Your task to perform on an android device: Show the shopping cart on walmart.com. Add lenovo thinkpad to the cart on walmart.com Image 0: 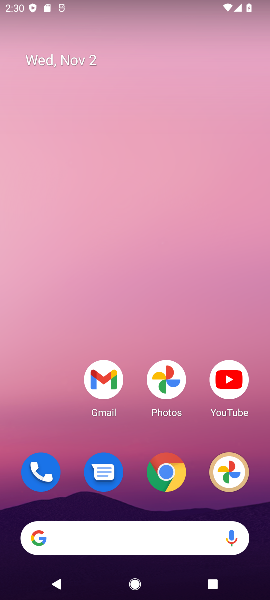
Step 0: click (165, 473)
Your task to perform on an android device: Show the shopping cart on walmart.com. Add lenovo thinkpad to the cart on walmart.com Image 1: 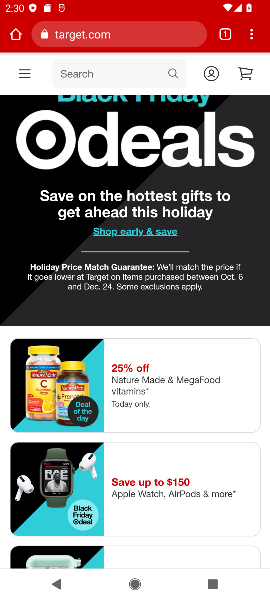
Step 1: click (73, 40)
Your task to perform on an android device: Show the shopping cart on walmart.com. Add lenovo thinkpad to the cart on walmart.com Image 2: 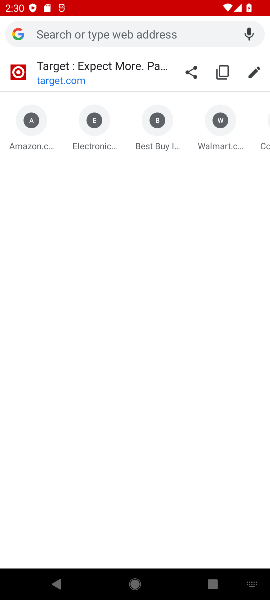
Step 2: type "walmart.com"
Your task to perform on an android device: Show the shopping cart on walmart.com. Add lenovo thinkpad to the cart on walmart.com Image 3: 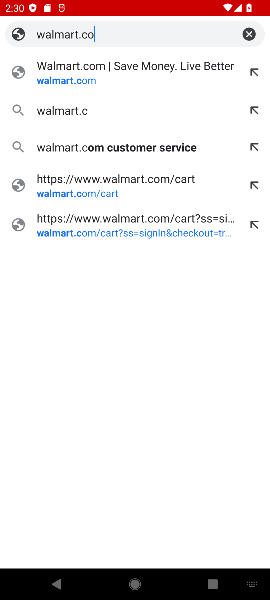
Step 3: type ""
Your task to perform on an android device: Show the shopping cart on walmart.com. Add lenovo thinkpad to the cart on walmart.com Image 4: 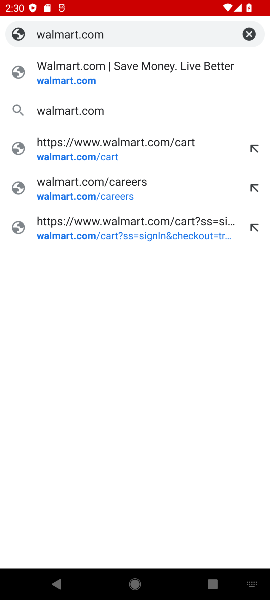
Step 4: press enter
Your task to perform on an android device: Show the shopping cart on walmart.com. Add lenovo thinkpad to the cart on walmart.com Image 5: 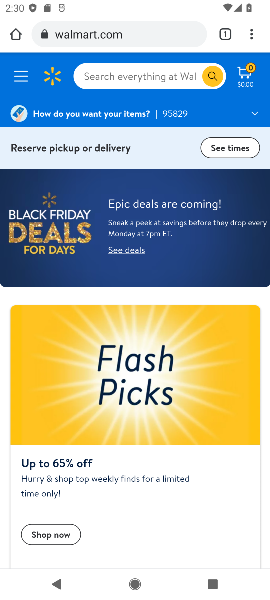
Step 5: click (115, 82)
Your task to perform on an android device: Show the shopping cart on walmart.com. Add lenovo thinkpad to the cart on walmart.com Image 6: 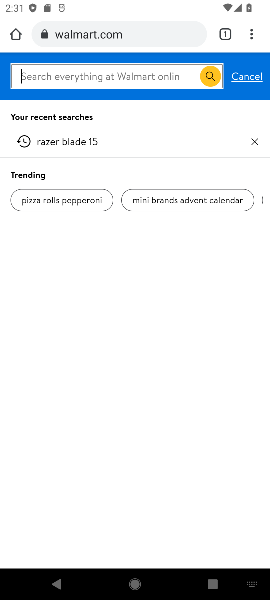
Step 6: type " lenovo thinkpad"
Your task to perform on an android device: Show the shopping cart on walmart.com. Add lenovo thinkpad to the cart on walmart.com Image 7: 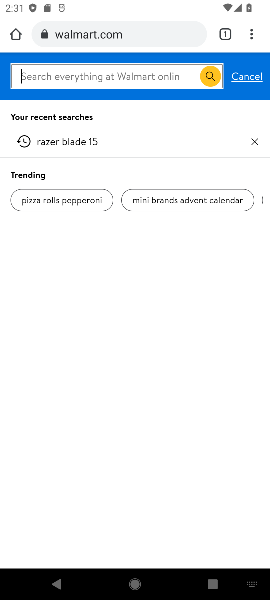
Step 7: type ""
Your task to perform on an android device: Show the shopping cart on walmart.com. Add lenovo thinkpad to the cart on walmart.com Image 8: 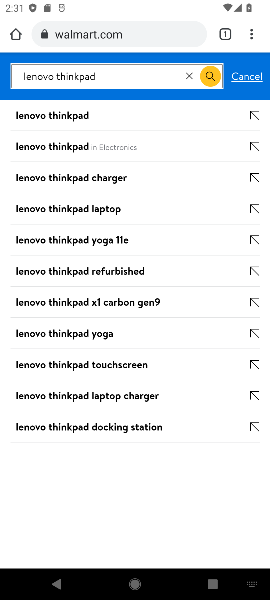
Step 8: click (206, 77)
Your task to perform on an android device: Show the shopping cart on walmart.com. Add lenovo thinkpad to the cart on walmart.com Image 9: 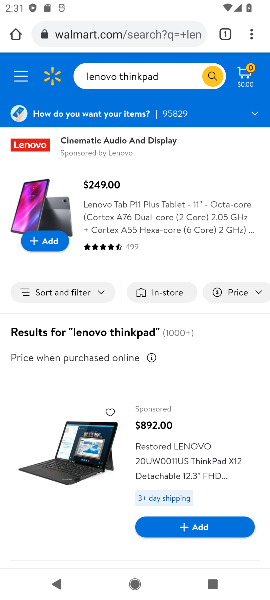
Step 9: drag from (171, 452) to (198, 270)
Your task to perform on an android device: Show the shopping cart on walmart.com. Add lenovo thinkpad to the cart on walmart.com Image 10: 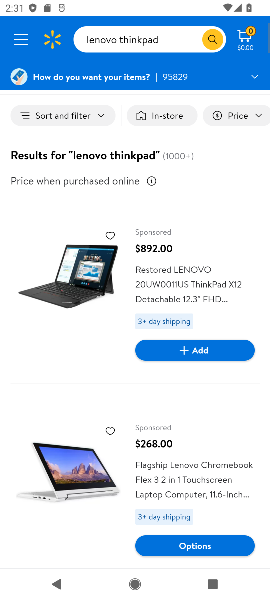
Step 10: click (181, 244)
Your task to perform on an android device: Show the shopping cart on walmart.com. Add lenovo thinkpad to the cart on walmart.com Image 11: 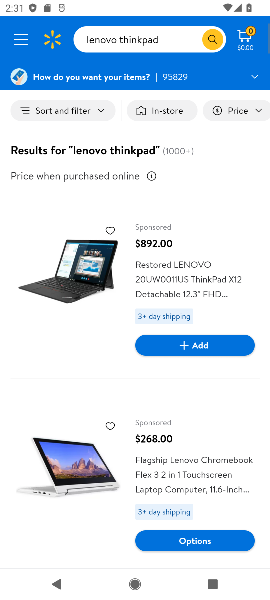
Step 11: drag from (186, 385) to (163, 239)
Your task to perform on an android device: Show the shopping cart on walmart.com. Add lenovo thinkpad to the cart on walmart.com Image 12: 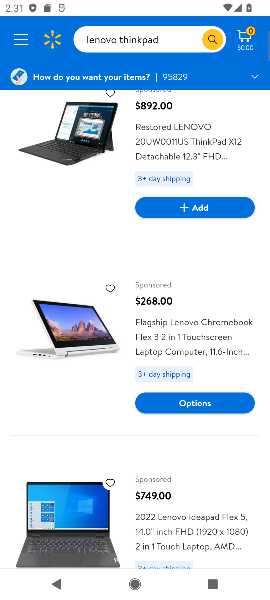
Step 12: drag from (160, 395) to (159, 260)
Your task to perform on an android device: Show the shopping cart on walmart.com. Add lenovo thinkpad to the cart on walmart.com Image 13: 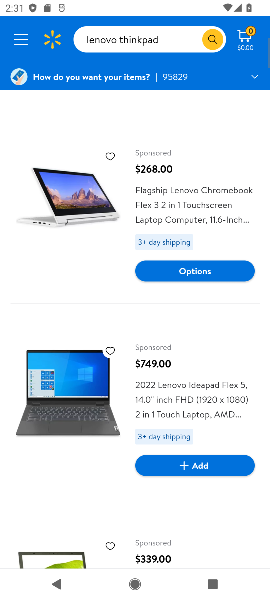
Step 13: drag from (181, 406) to (168, 241)
Your task to perform on an android device: Show the shopping cart on walmart.com. Add lenovo thinkpad to the cart on walmart.com Image 14: 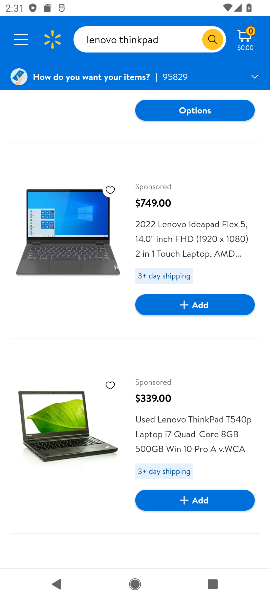
Step 14: click (174, 243)
Your task to perform on an android device: Show the shopping cart on walmart.com. Add lenovo thinkpad to the cart on walmart.com Image 15: 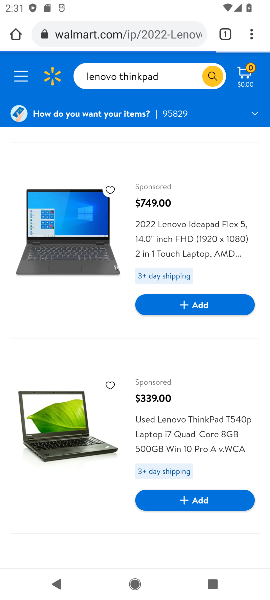
Step 15: click (188, 305)
Your task to perform on an android device: Show the shopping cart on walmart.com. Add lenovo thinkpad to the cart on walmart.com Image 16: 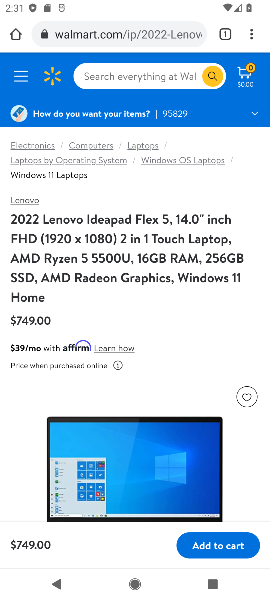
Step 16: click (213, 541)
Your task to perform on an android device: Show the shopping cart on walmart.com. Add lenovo thinkpad to the cart on walmart.com Image 17: 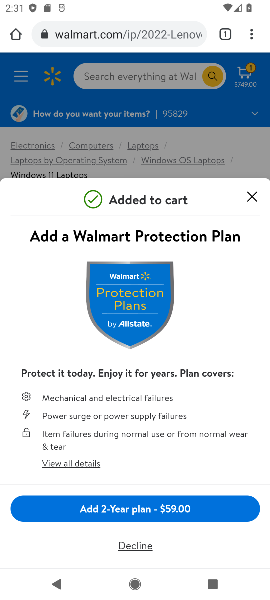
Step 17: click (135, 547)
Your task to perform on an android device: Show the shopping cart on walmart.com. Add lenovo thinkpad to the cart on walmart.com Image 18: 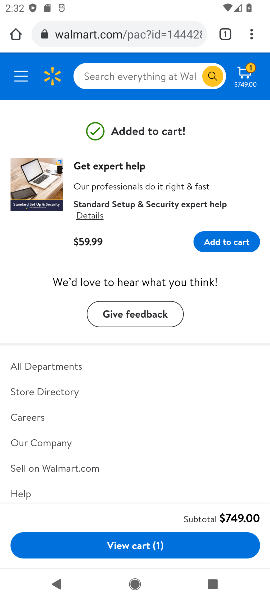
Step 18: click (216, 246)
Your task to perform on an android device: Show the shopping cart on walmart.com. Add lenovo thinkpad to the cart on walmart.com Image 19: 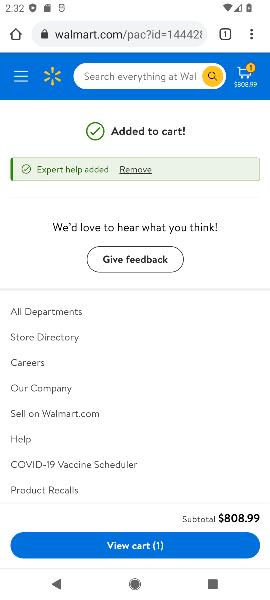
Step 19: task complete